Your task to perform on an android device: Open network settings Image 0: 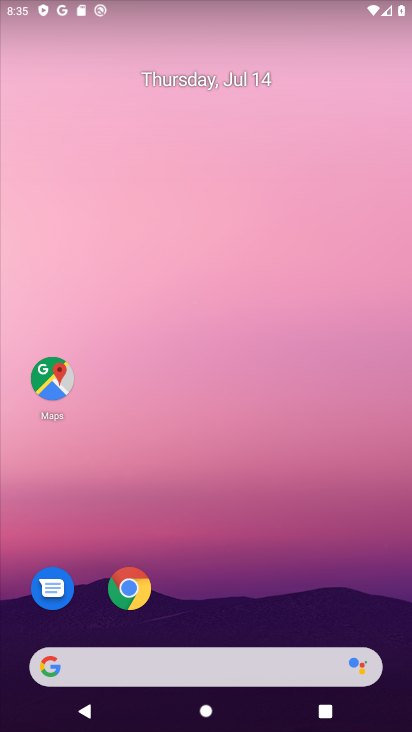
Step 0: click (176, 379)
Your task to perform on an android device: Open network settings Image 1: 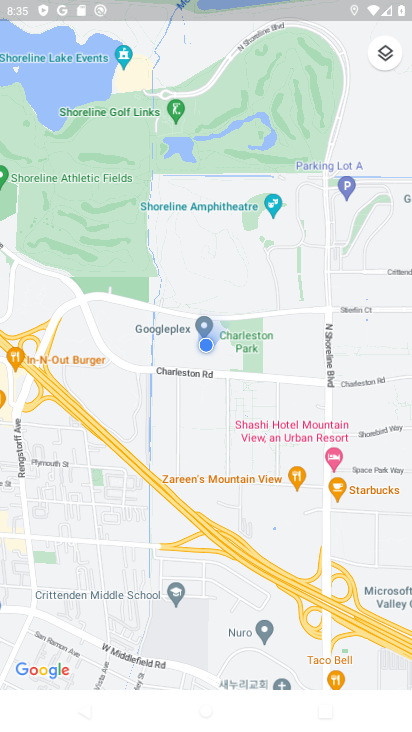
Step 1: press back button
Your task to perform on an android device: Open network settings Image 2: 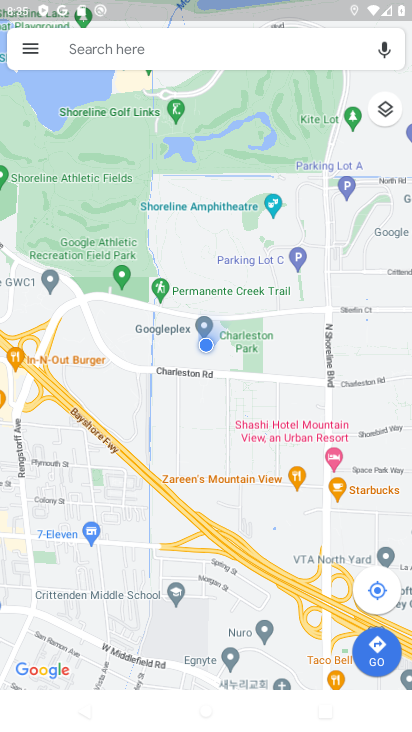
Step 2: click (73, 46)
Your task to perform on an android device: Open network settings Image 3: 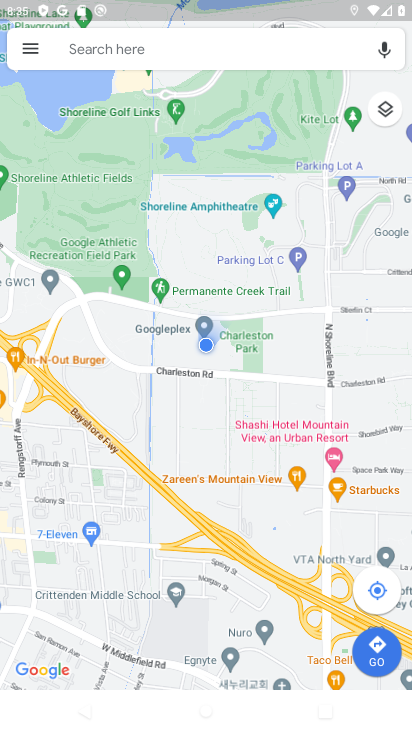
Step 3: click (73, 46)
Your task to perform on an android device: Open network settings Image 4: 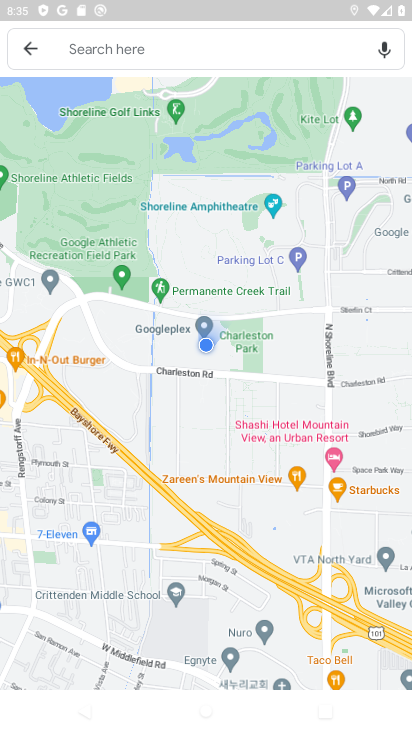
Step 4: click (73, 46)
Your task to perform on an android device: Open network settings Image 5: 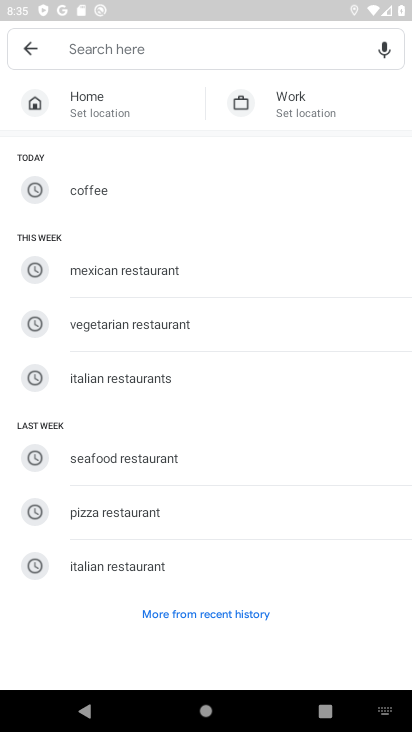
Step 5: click (27, 49)
Your task to perform on an android device: Open network settings Image 6: 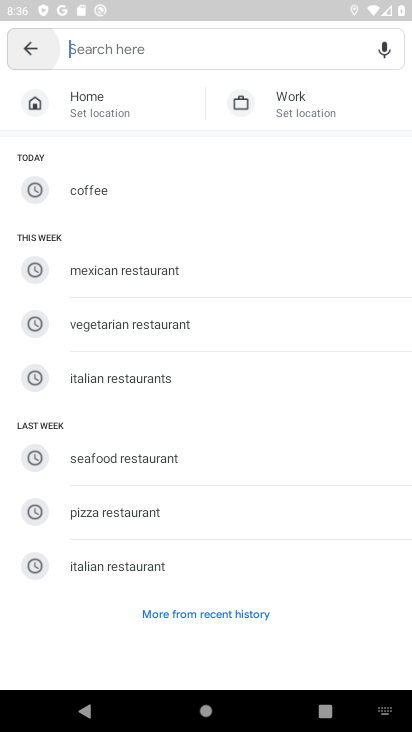
Step 6: click (27, 49)
Your task to perform on an android device: Open network settings Image 7: 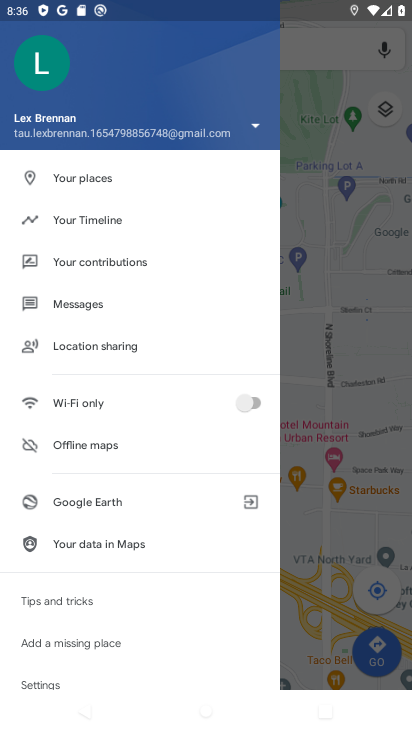
Step 7: click (348, 286)
Your task to perform on an android device: Open network settings Image 8: 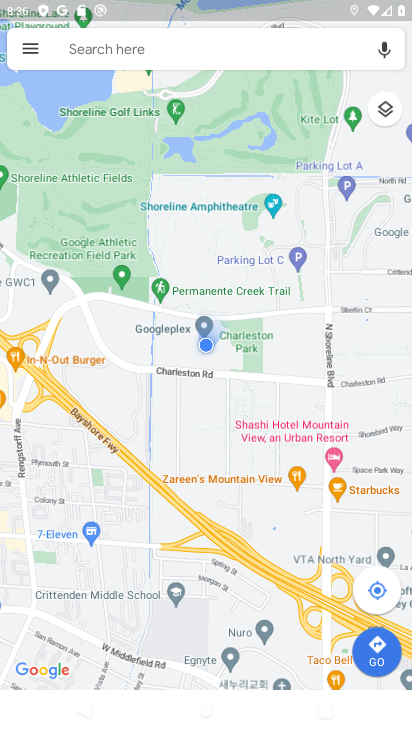
Step 8: press back button
Your task to perform on an android device: Open network settings Image 9: 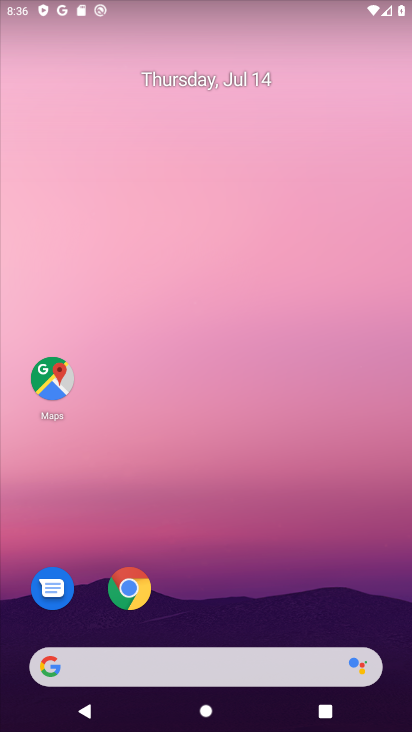
Step 9: drag from (219, 665) to (119, 241)
Your task to perform on an android device: Open network settings Image 10: 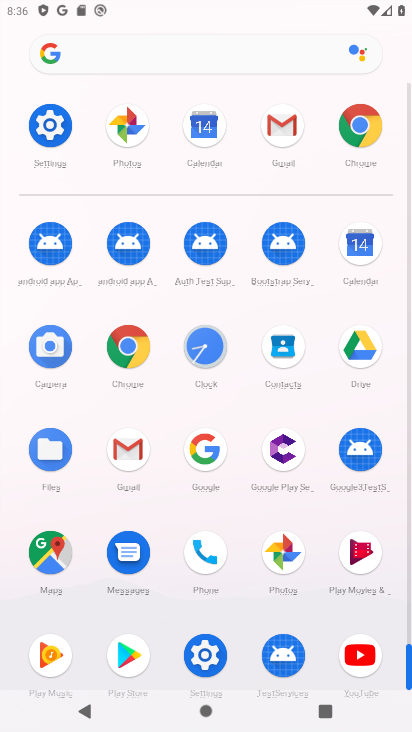
Step 10: click (48, 129)
Your task to perform on an android device: Open network settings Image 11: 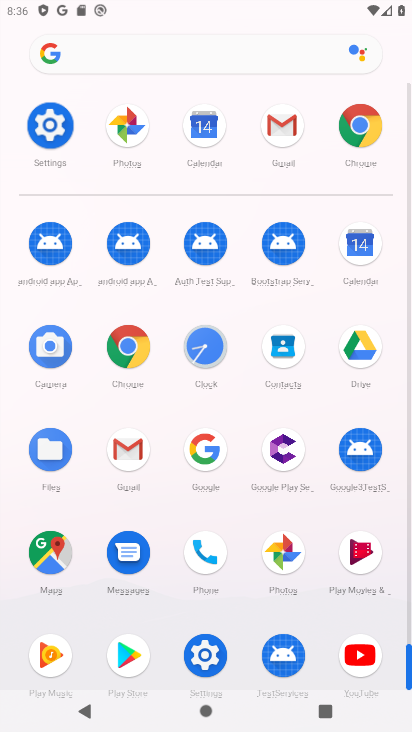
Step 11: click (48, 129)
Your task to perform on an android device: Open network settings Image 12: 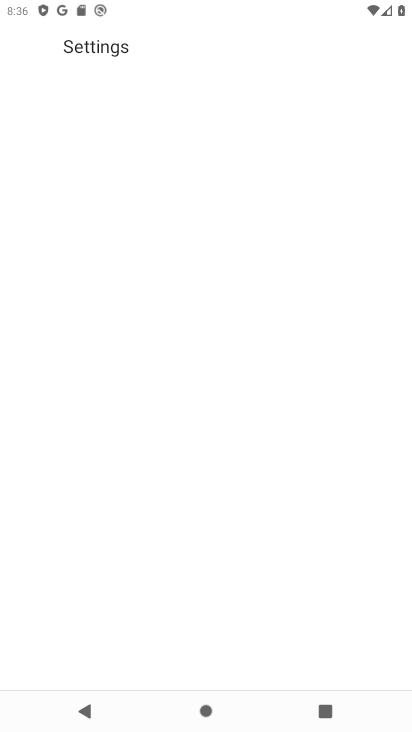
Step 12: click (48, 129)
Your task to perform on an android device: Open network settings Image 13: 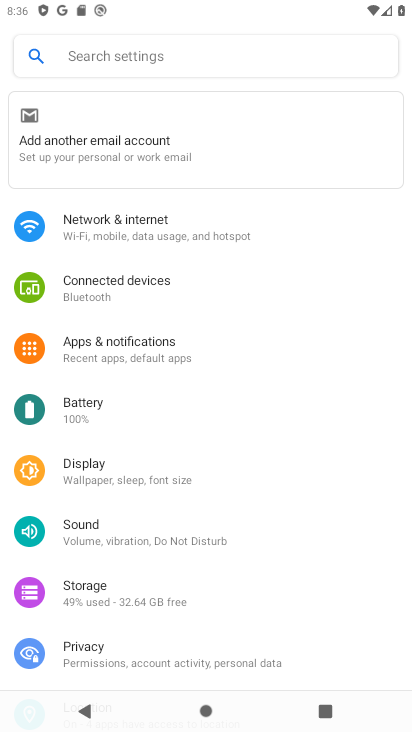
Step 13: click (48, 129)
Your task to perform on an android device: Open network settings Image 14: 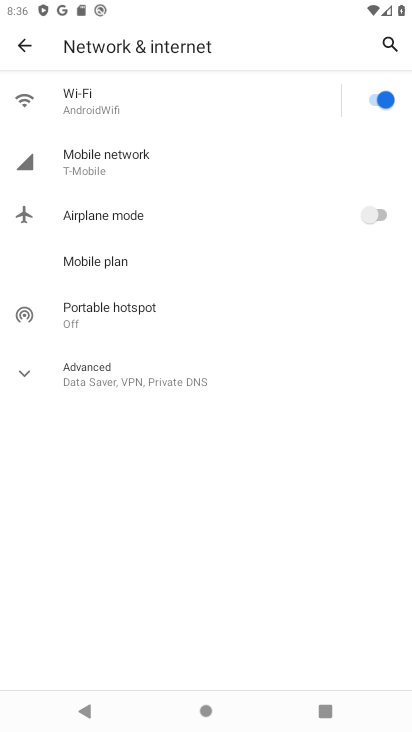
Step 14: task complete